Your task to perform on an android device: open a bookmark in the chrome app Image 0: 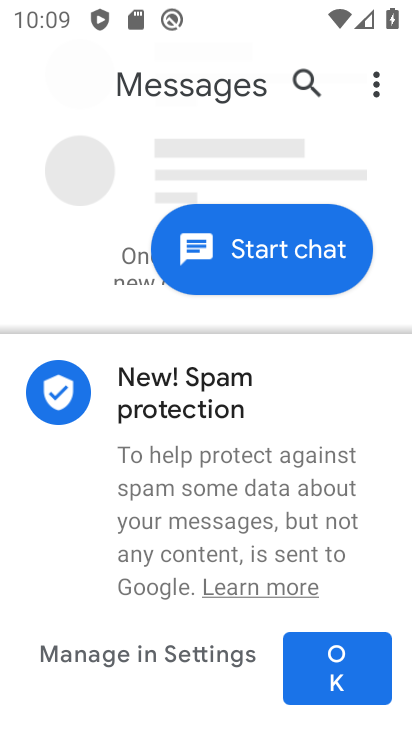
Step 0: press home button
Your task to perform on an android device: open a bookmark in the chrome app Image 1: 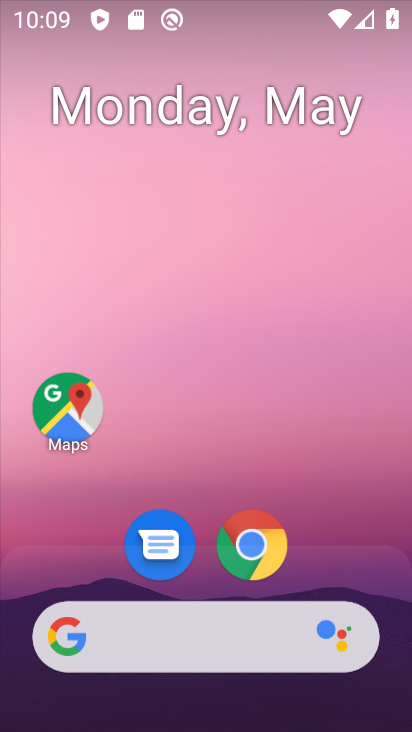
Step 1: drag from (206, 616) to (75, 662)
Your task to perform on an android device: open a bookmark in the chrome app Image 2: 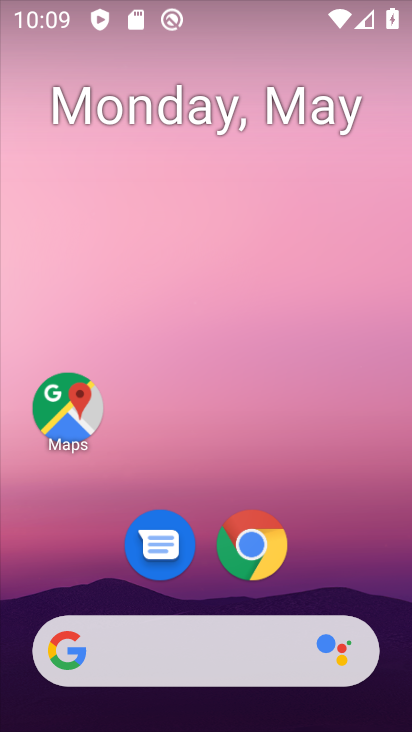
Step 2: click (260, 448)
Your task to perform on an android device: open a bookmark in the chrome app Image 3: 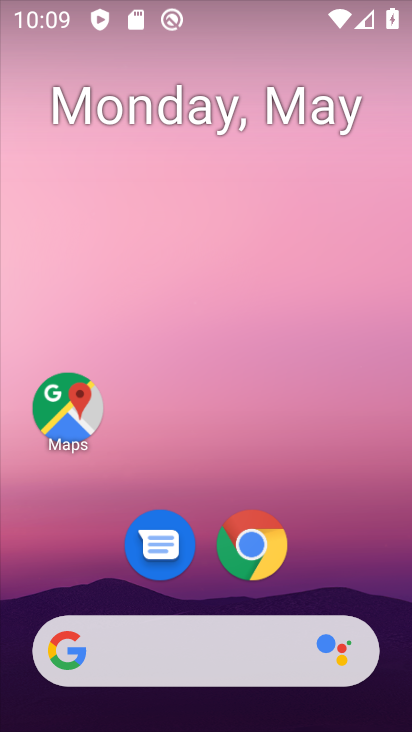
Step 3: click (268, 559)
Your task to perform on an android device: open a bookmark in the chrome app Image 4: 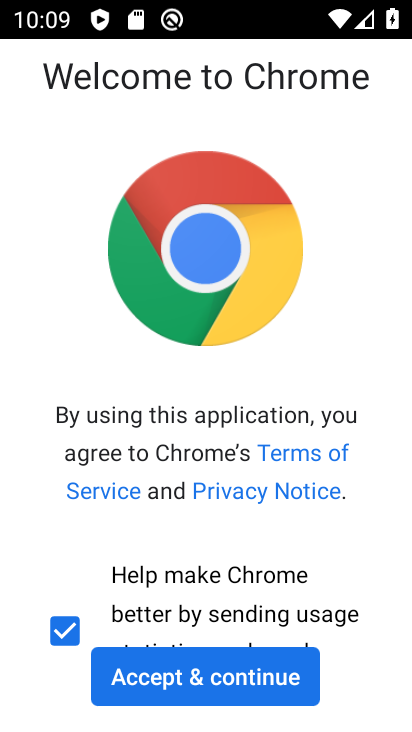
Step 4: click (252, 686)
Your task to perform on an android device: open a bookmark in the chrome app Image 5: 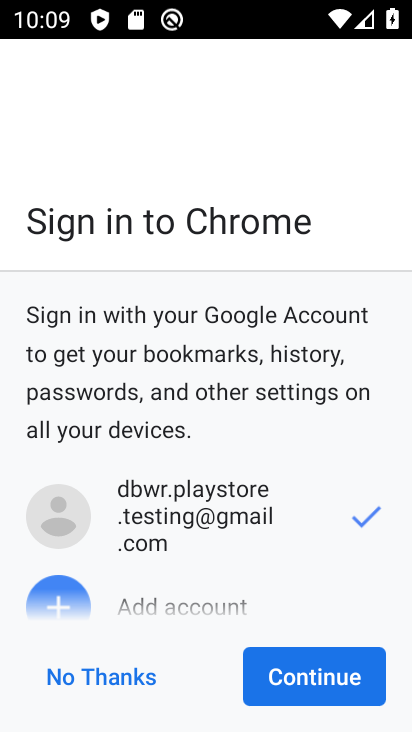
Step 5: click (300, 680)
Your task to perform on an android device: open a bookmark in the chrome app Image 6: 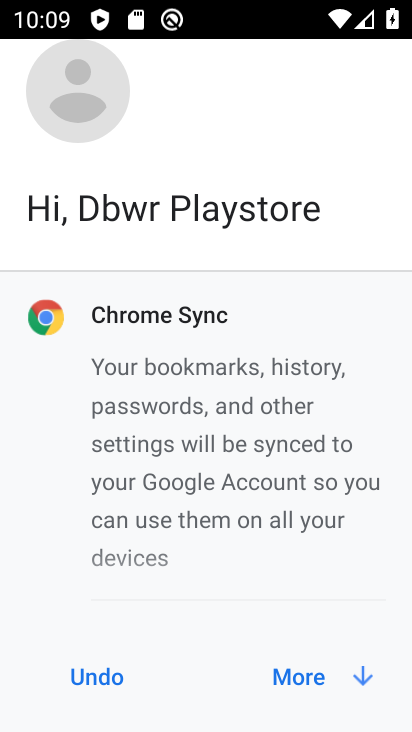
Step 6: click (301, 675)
Your task to perform on an android device: open a bookmark in the chrome app Image 7: 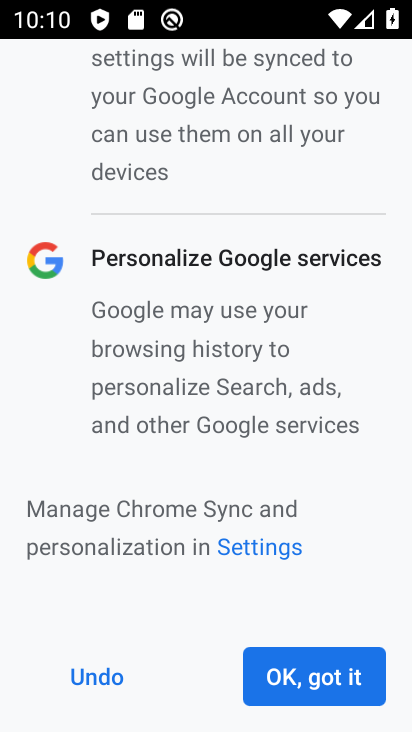
Step 7: click (305, 665)
Your task to perform on an android device: open a bookmark in the chrome app Image 8: 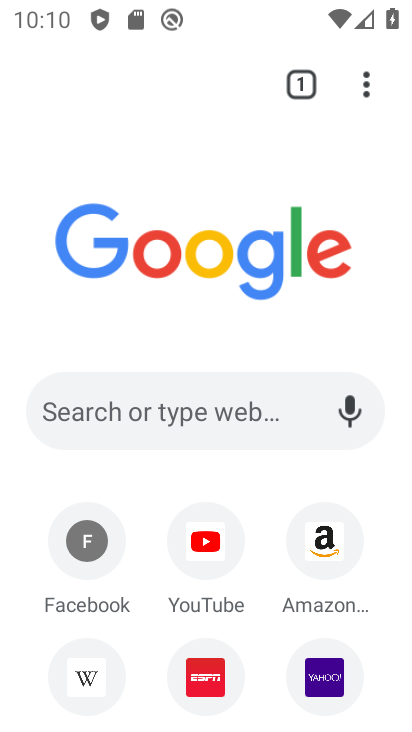
Step 8: click (362, 95)
Your task to perform on an android device: open a bookmark in the chrome app Image 9: 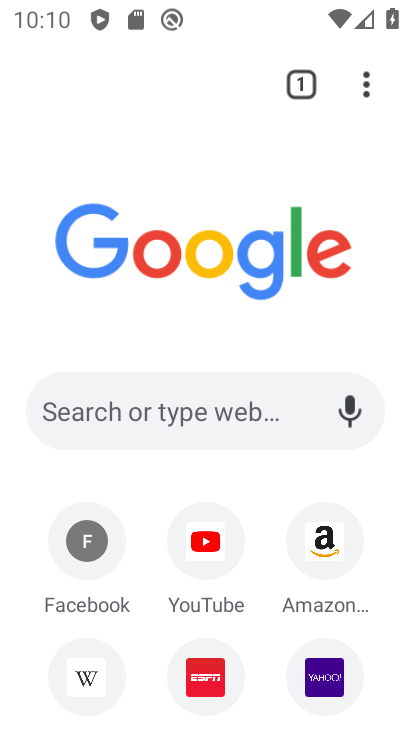
Step 9: task complete